Your task to perform on an android device: Open Android settings Image 0: 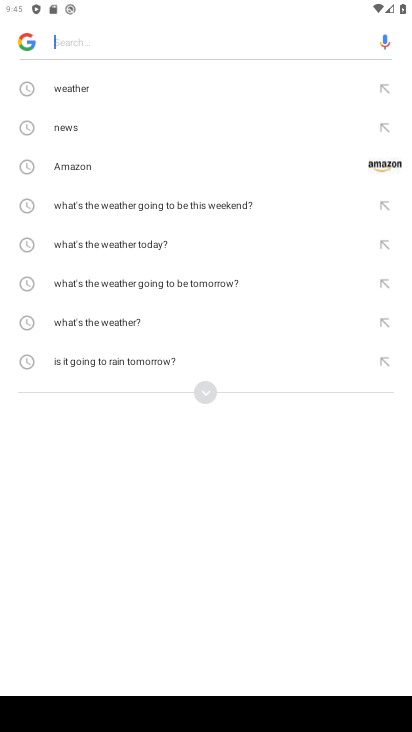
Step 0: press back button
Your task to perform on an android device: Open Android settings Image 1: 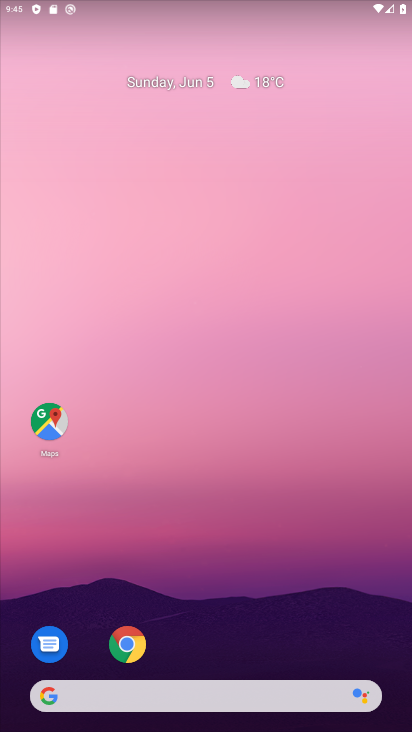
Step 1: drag from (169, 665) to (270, 247)
Your task to perform on an android device: Open Android settings Image 2: 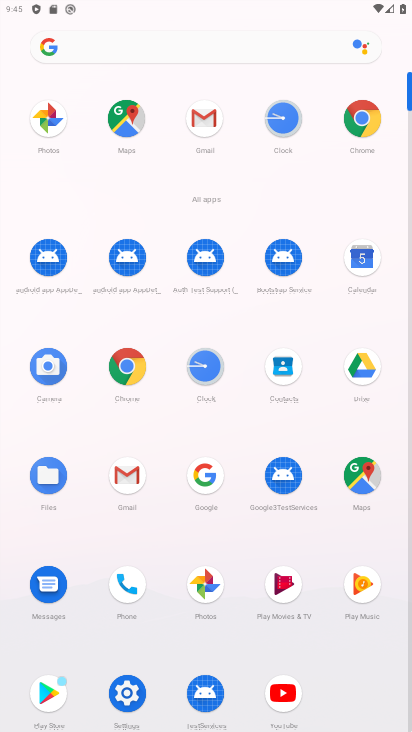
Step 2: click (107, 690)
Your task to perform on an android device: Open Android settings Image 3: 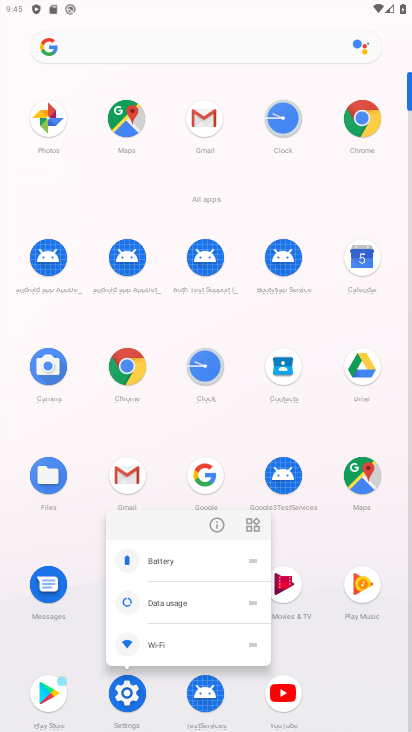
Step 3: click (118, 703)
Your task to perform on an android device: Open Android settings Image 4: 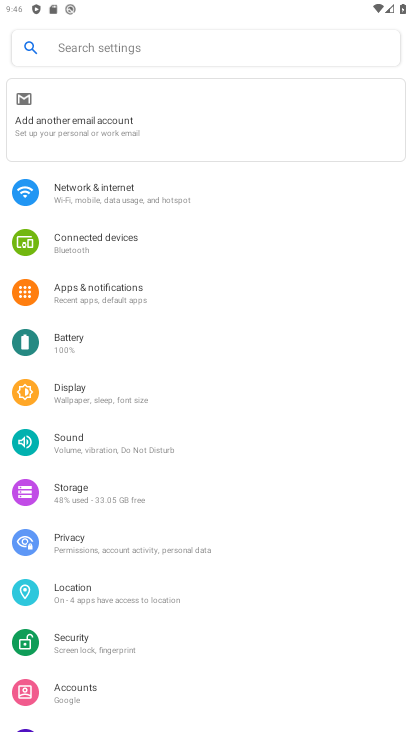
Step 4: task complete